Your task to perform on an android device: turn on data saver in the chrome app Image 0: 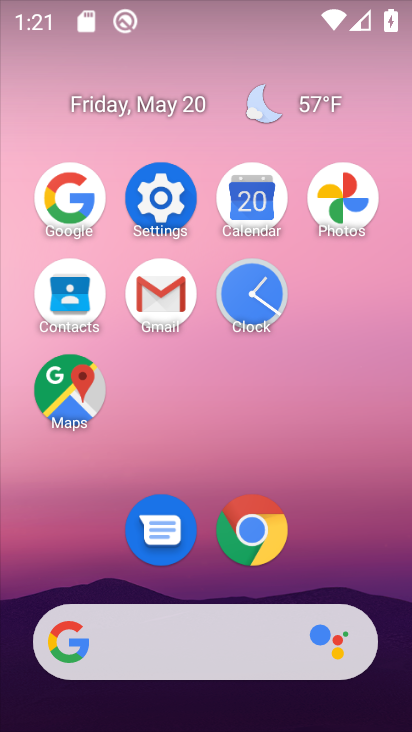
Step 0: click (271, 529)
Your task to perform on an android device: turn on data saver in the chrome app Image 1: 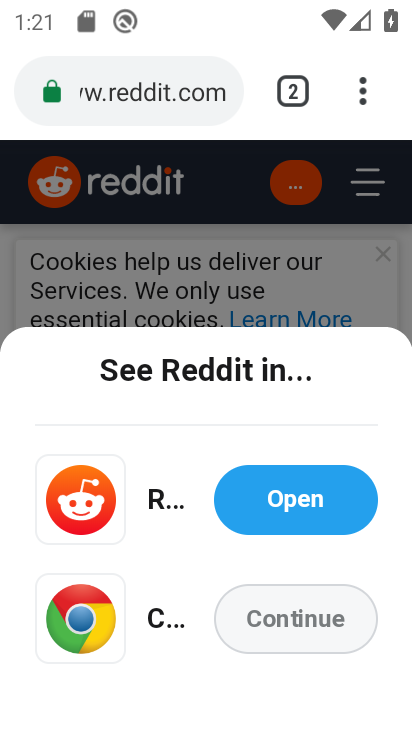
Step 1: click (372, 96)
Your task to perform on an android device: turn on data saver in the chrome app Image 2: 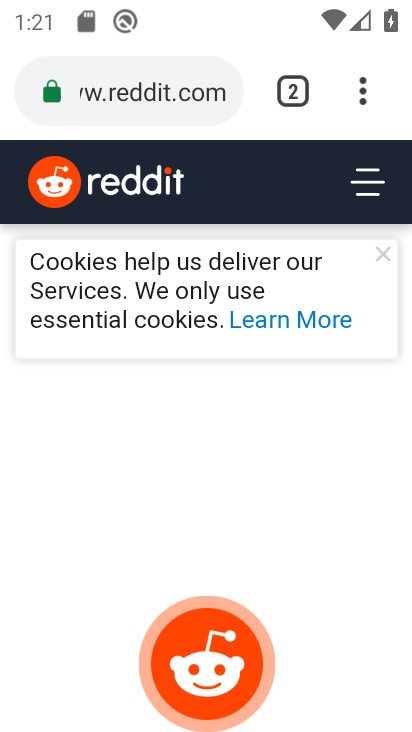
Step 2: click (359, 103)
Your task to perform on an android device: turn on data saver in the chrome app Image 3: 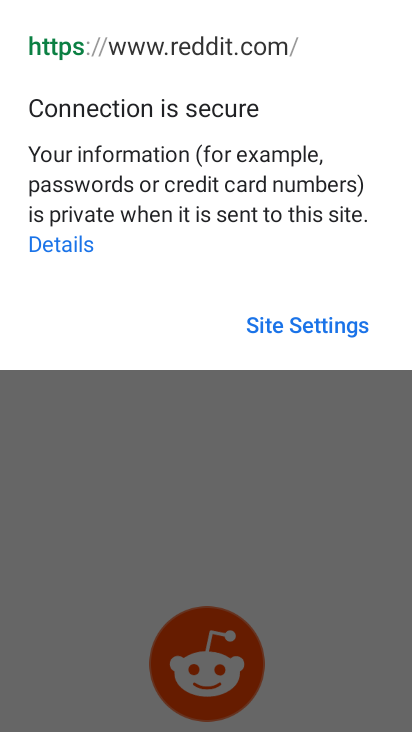
Step 3: click (285, 416)
Your task to perform on an android device: turn on data saver in the chrome app Image 4: 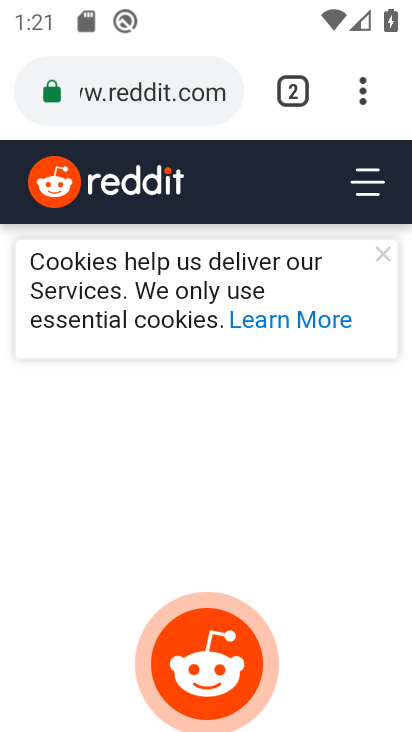
Step 4: click (358, 85)
Your task to perform on an android device: turn on data saver in the chrome app Image 5: 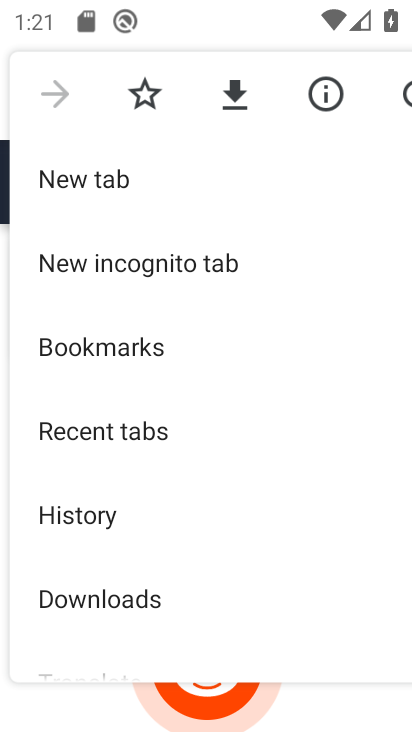
Step 5: drag from (242, 448) to (268, 76)
Your task to perform on an android device: turn on data saver in the chrome app Image 6: 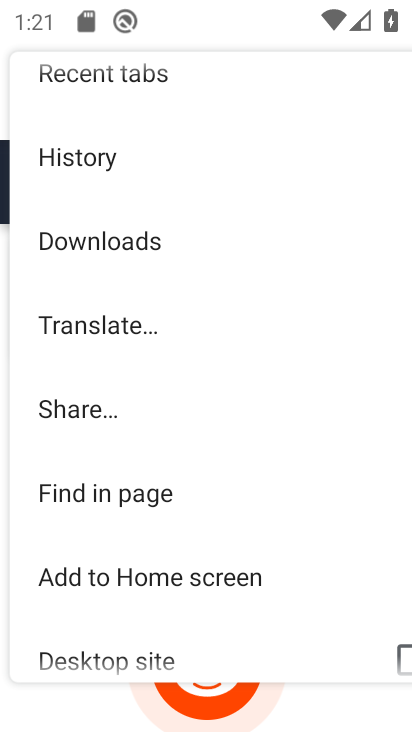
Step 6: drag from (226, 535) to (226, 218)
Your task to perform on an android device: turn on data saver in the chrome app Image 7: 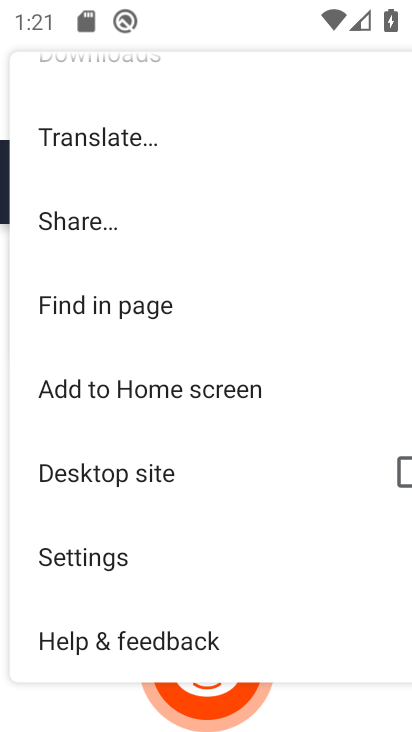
Step 7: click (97, 541)
Your task to perform on an android device: turn on data saver in the chrome app Image 8: 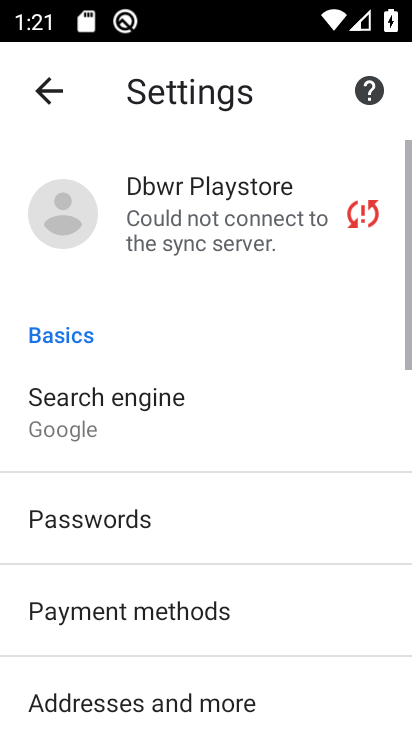
Step 8: drag from (260, 589) to (253, 195)
Your task to perform on an android device: turn on data saver in the chrome app Image 9: 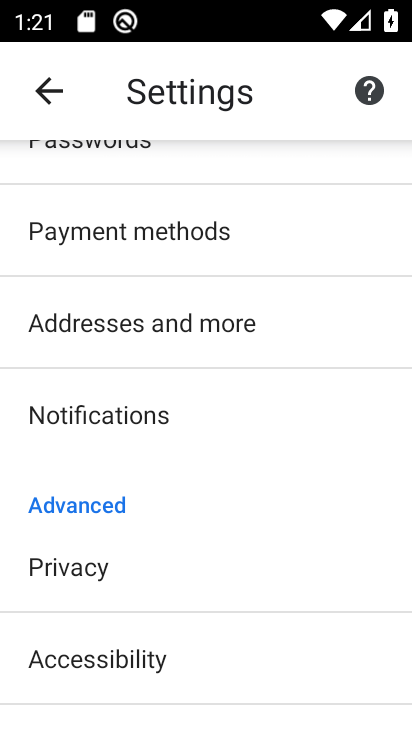
Step 9: drag from (249, 689) to (255, 228)
Your task to perform on an android device: turn on data saver in the chrome app Image 10: 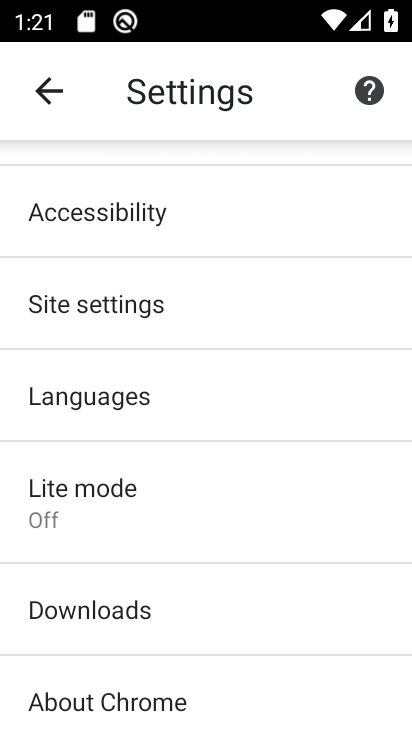
Step 10: click (259, 487)
Your task to perform on an android device: turn on data saver in the chrome app Image 11: 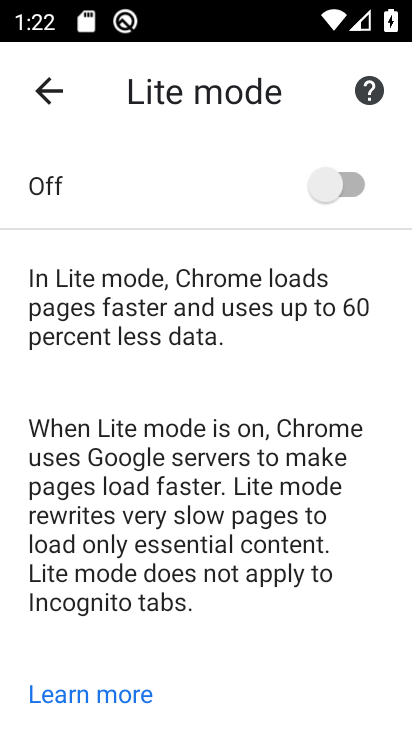
Step 11: click (344, 207)
Your task to perform on an android device: turn on data saver in the chrome app Image 12: 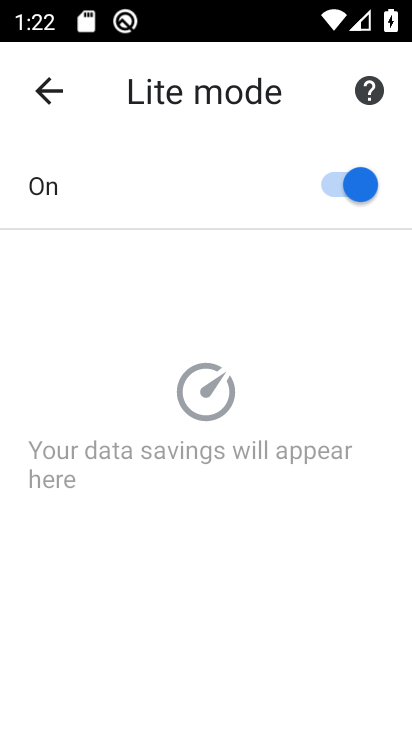
Step 12: task complete